Your task to perform on an android device: Search for logitech g903 on costco.com, select the first entry, and add it to the cart. Image 0: 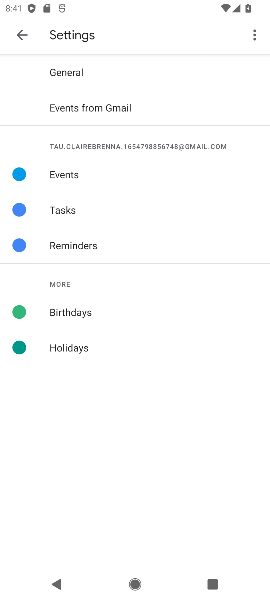
Step 0: press home button
Your task to perform on an android device: Search for logitech g903 on costco.com, select the first entry, and add it to the cart. Image 1: 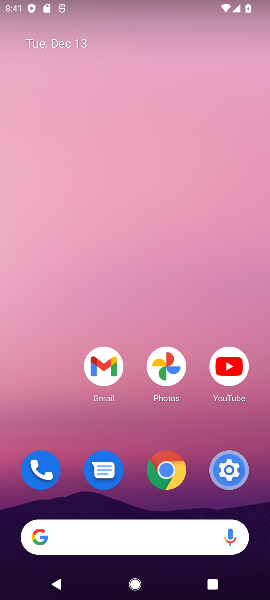
Step 1: drag from (122, 120) to (259, 366)
Your task to perform on an android device: Search for logitech g903 on costco.com, select the first entry, and add it to the cart. Image 2: 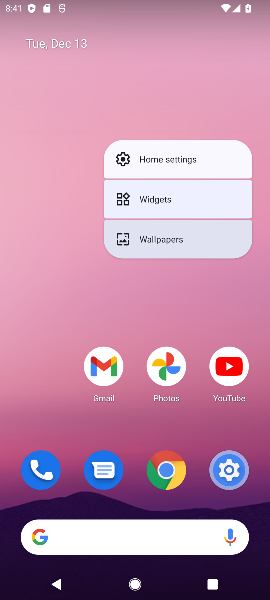
Step 2: click (89, 535)
Your task to perform on an android device: Search for logitech g903 on costco.com, select the first entry, and add it to the cart. Image 3: 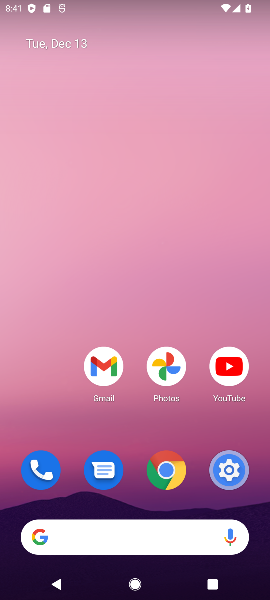
Step 3: click (63, 534)
Your task to perform on an android device: Search for logitech g903 on costco.com, select the first entry, and add it to the cart. Image 4: 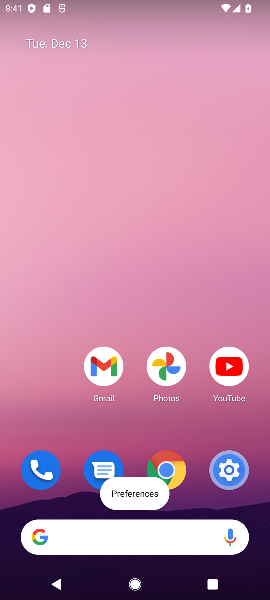
Step 4: click (53, 532)
Your task to perform on an android device: Search for logitech g903 on costco.com, select the first entry, and add it to the cart. Image 5: 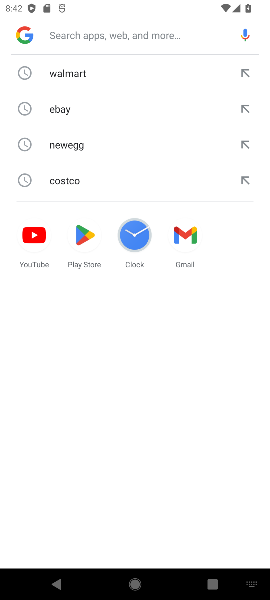
Step 5: type "costco.com"
Your task to perform on an android device: Search for logitech g903 on costco.com, select the first entry, and add it to the cart. Image 6: 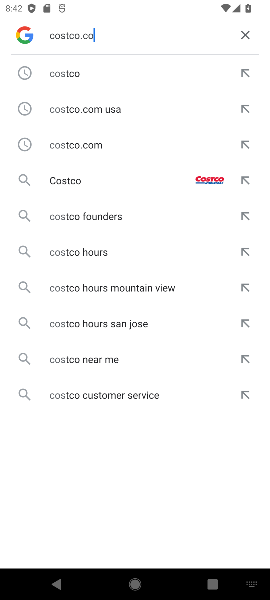
Step 6: press enter
Your task to perform on an android device: Search for logitech g903 on costco.com, select the first entry, and add it to the cart. Image 7: 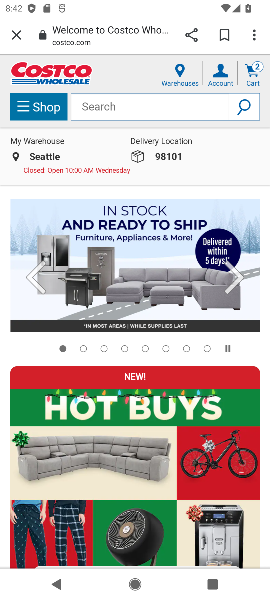
Step 7: click (119, 102)
Your task to perform on an android device: Search for logitech g903 on costco.com, select the first entry, and add it to the cart. Image 8: 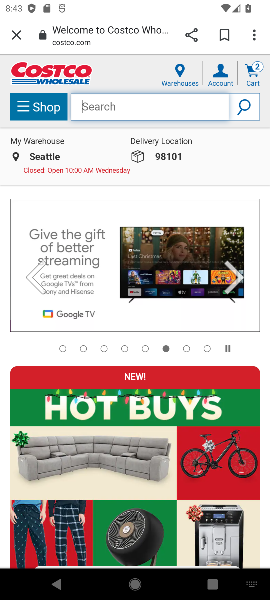
Step 8: type "logitech g903"
Your task to perform on an android device: Search for logitech g903 on costco.com, select the first entry, and add it to the cart. Image 9: 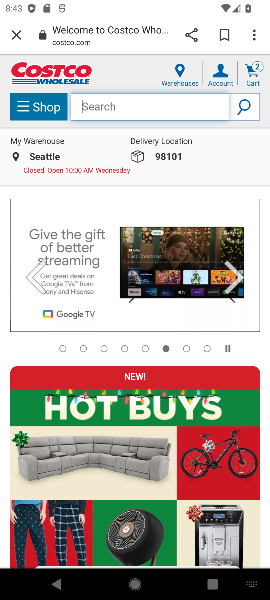
Step 9: press enter
Your task to perform on an android device: Search for logitech g903 on costco.com, select the first entry, and add it to the cart. Image 10: 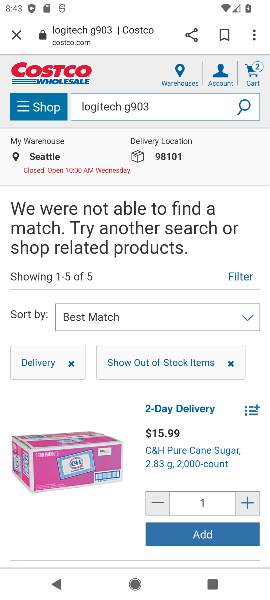
Step 10: task complete